Your task to perform on an android device: Go to Yahoo.com Image 0: 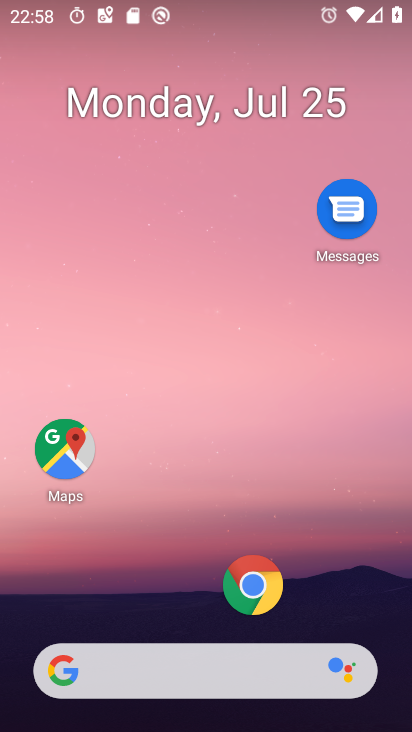
Step 0: press home button
Your task to perform on an android device: Go to Yahoo.com Image 1: 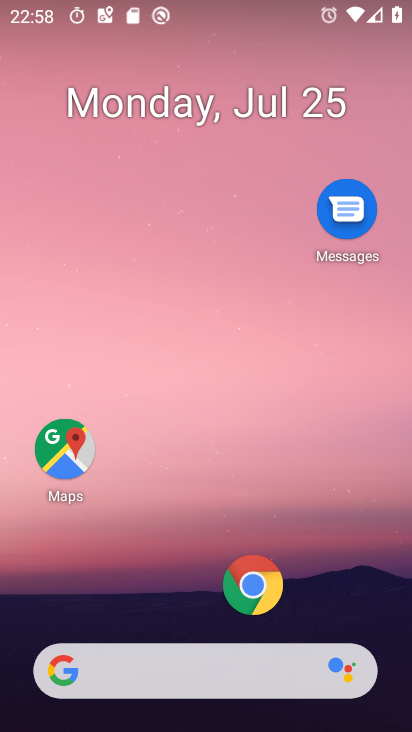
Step 1: click (255, 579)
Your task to perform on an android device: Go to Yahoo.com Image 2: 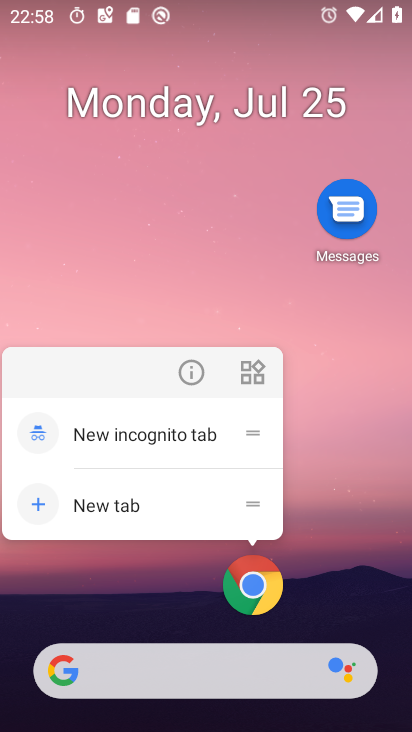
Step 2: click (246, 583)
Your task to perform on an android device: Go to Yahoo.com Image 3: 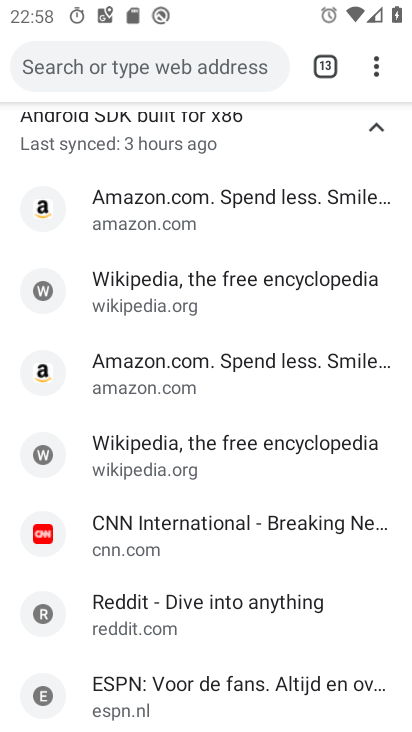
Step 3: drag from (379, 68) to (163, 133)
Your task to perform on an android device: Go to Yahoo.com Image 4: 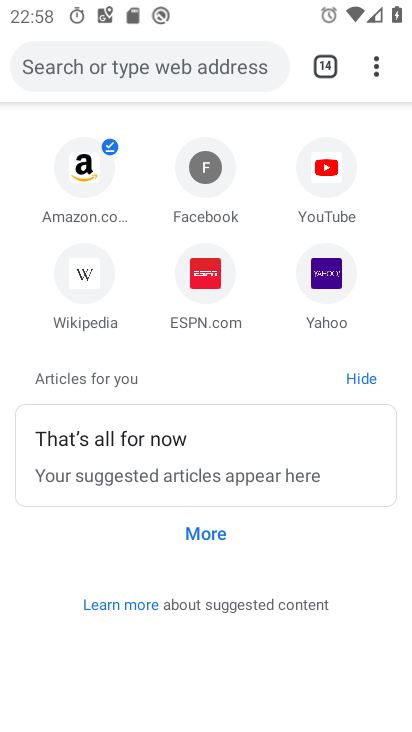
Step 4: click (317, 274)
Your task to perform on an android device: Go to Yahoo.com Image 5: 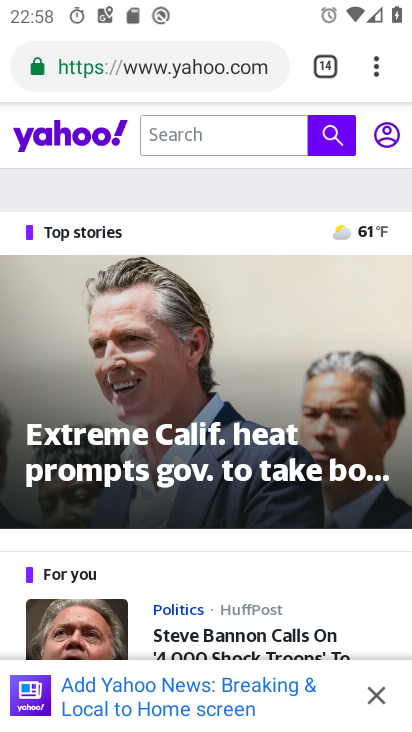
Step 5: task complete